Your task to perform on an android device: Add razer nari to the cart on amazon.com, then select checkout. Image 0: 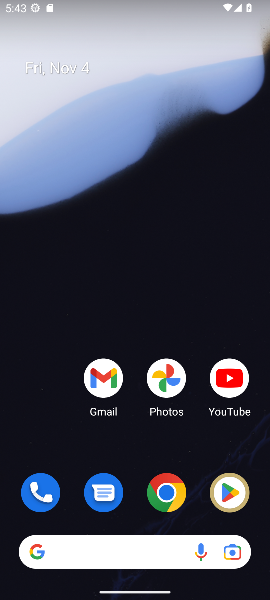
Step 0: drag from (135, 451) to (146, 6)
Your task to perform on an android device: Add razer nari to the cart on amazon.com, then select checkout. Image 1: 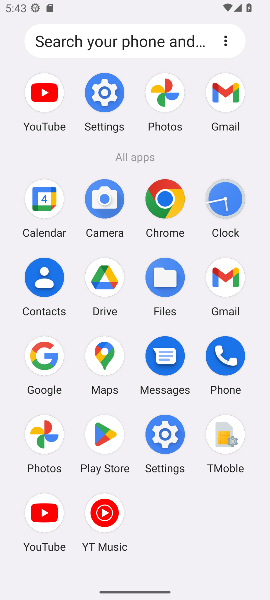
Step 1: click (165, 199)
Your task to perform on an android device: Add razer nari to the cart on amazon.com, then select checkout. Image 2: 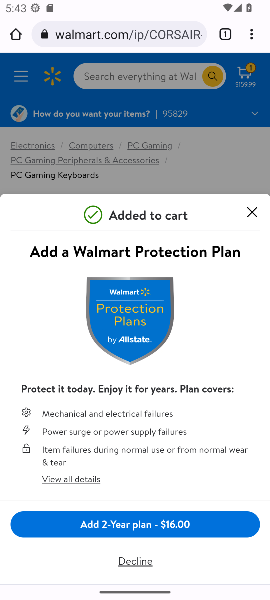
Step 2: click (141, 43)
Your task to perform on an android device: Add razer nari to the cart on amazon.com, then select checkout. Image 3: 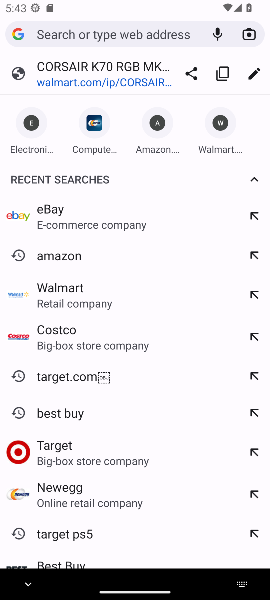
Step 3: type "amazon.com"
Your task to perform on an android device: Add razer nari to the cart on amazon.com, then select checkout. Image 4: 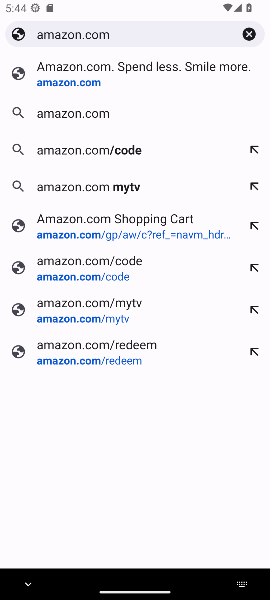
Step 4: press enter
Your task to perform on an android device: Add razer nari to the cart on amazon.com, then select checkout. Image 5: 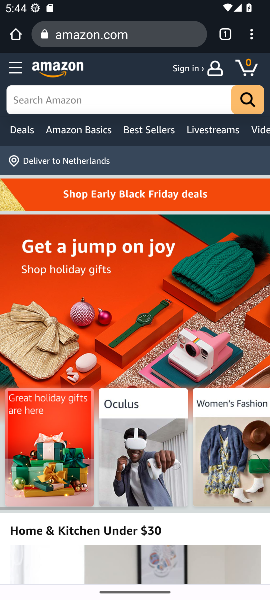
Step 5: click (165, 98)
Your task to perform on an android device: Add razer nari to the cart on amazon.com, then select checkout. Image 6: 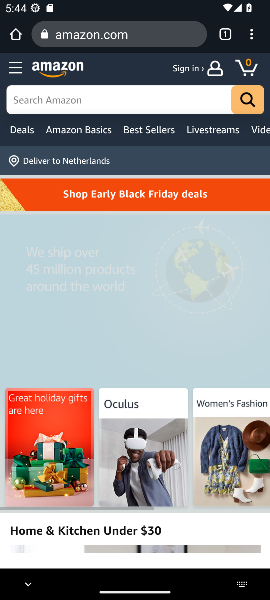
Step 6: type "razer nari"
Your task to perform on an android device: Add razer nari to the cart on amazon.com, then select checkout. Image 7: 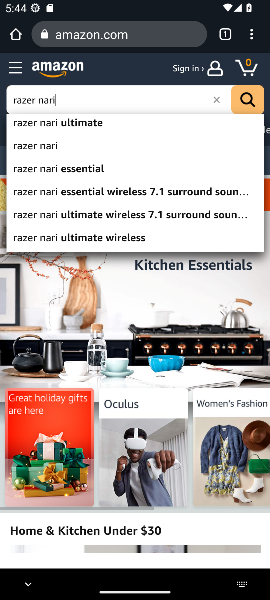
Step 7: press enter
Your task to perform on an android device: Add razer nari to the cart on amazon.com, then select checkout. Image 8: 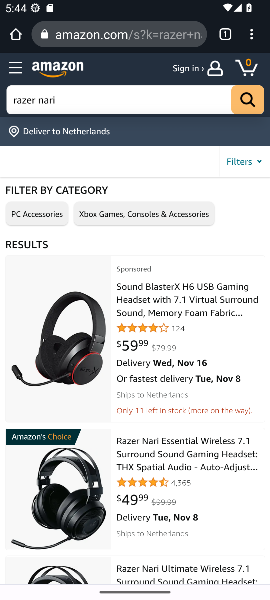
Step 8: click (178, 458)
Your task to perform on an android device: Add razer nari to the cart on amazon.com, then select checkout. Image 9: 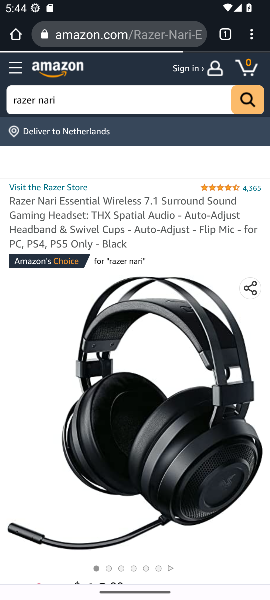
Step 9: drag from (171, 513) to (141, 139)
Your task to perform on an android device: Add razer nari to the cart on amazon.com, then select checkout. Image 10: 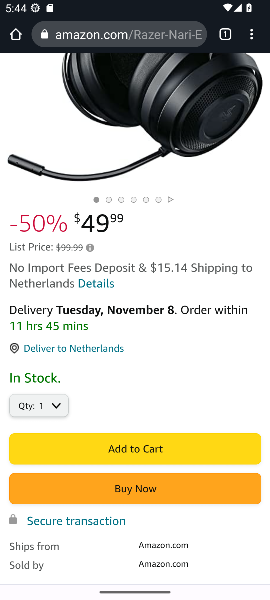
Step 10: click (150, 441)
Your task to perform on an android device: Add razer nari to the cart on amazon.com, then select checkout. Image 11: 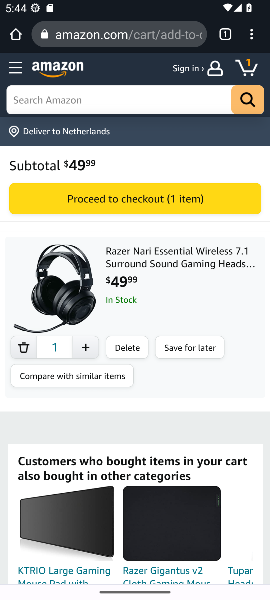
Step 11: click (188, 197)
Your task to perform on an android device: Add razer nari to the cart on amazon.com, then select checkout. Image 12: 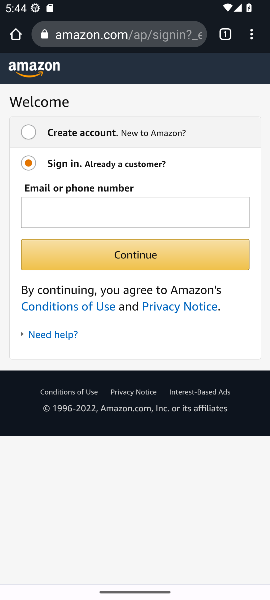
Step 12: task complete